Your task to perform on an android device: check out phone information Image 0: 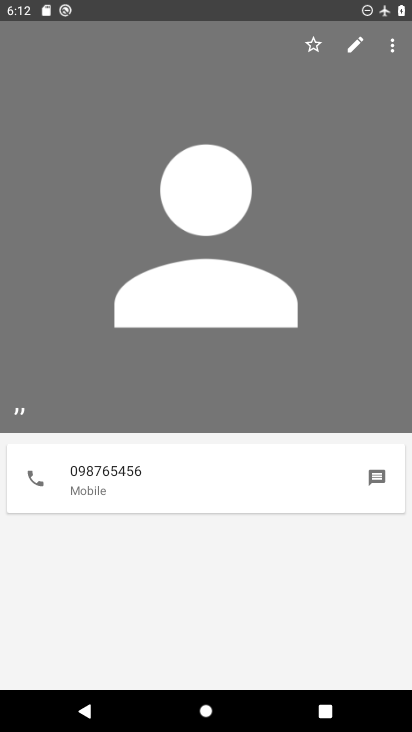
Step 0: press home button
Your task to perform on an android device: check out phone information Image 1: 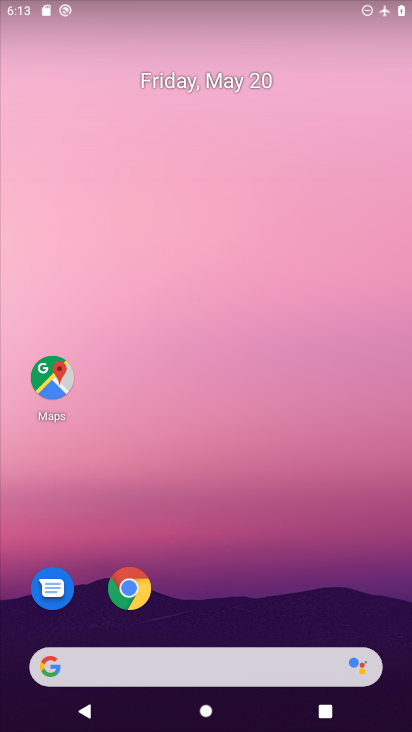
Step 1: drag from (196, 598) to (236, 301)
Your task to perform on an android device: check out phone information Image 2: 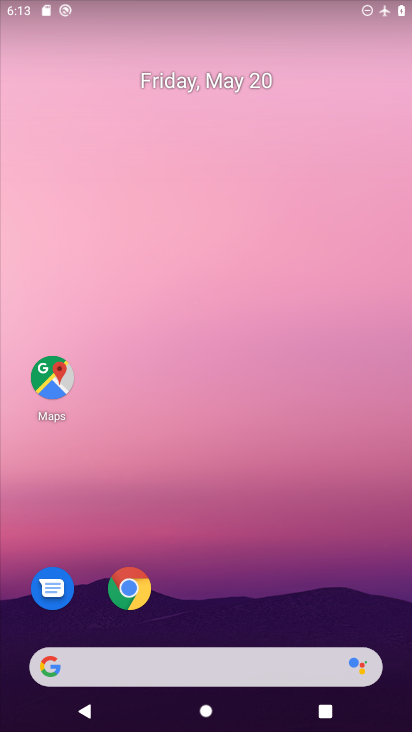
Step 2: drag from (210, 579) to (149, 52)
Your task to perform on an android device: check out phone information Image 3: 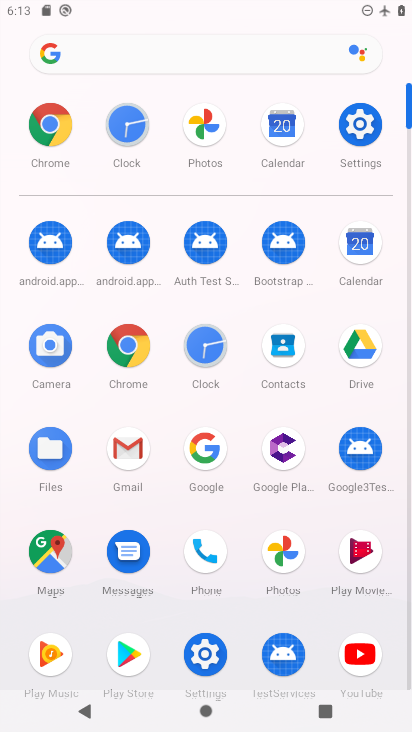
Step 3: click (370, 148)
Your task to perform on an android device: check out phone information Image 4: 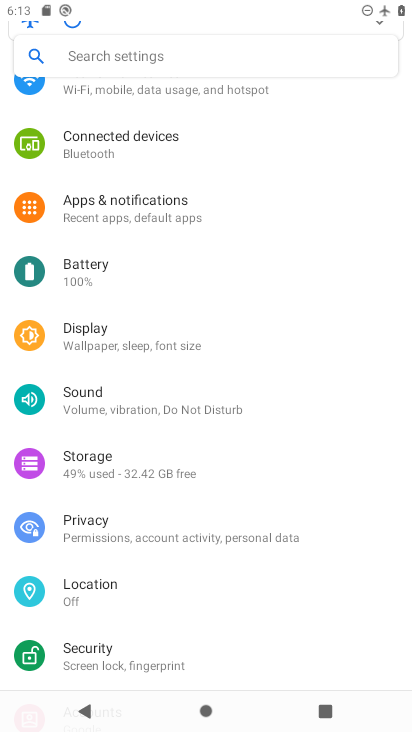
Step 4: drag from (152, 567) to (134, 99)
Your task to perform on an android device: check out phone information Image 5: 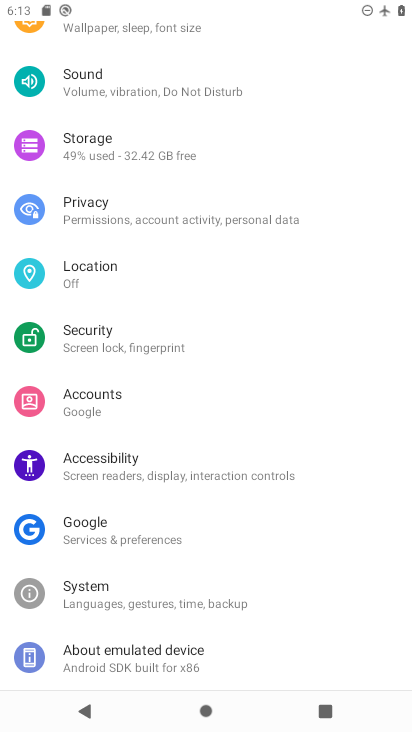
Step 5: drag from (128, 567) to (144, 152)
Your task to perform on an android device: check out phone information Image 6: 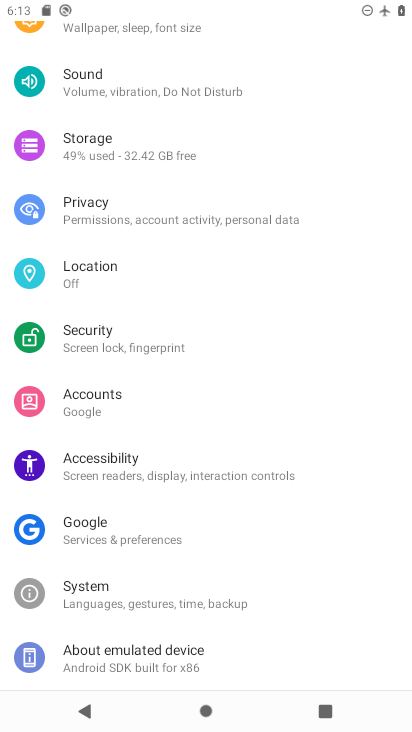
Step 6: click (96, 659)
Your task to perform on an android device: check out phone information Image 7: 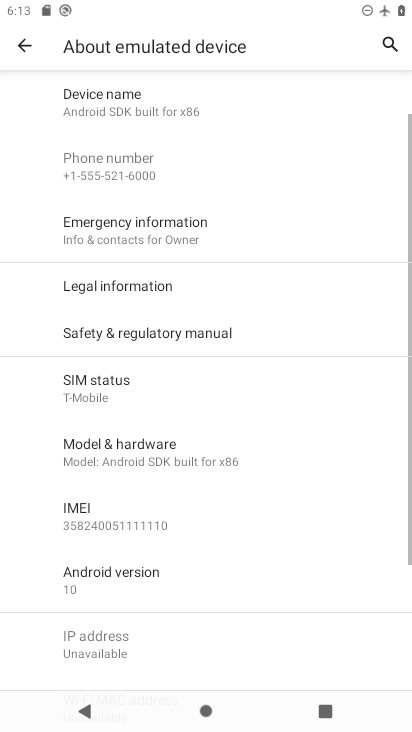
Step 7: task complete